Your task to perform on an android device: Show me popular videos on Youtube Image 0: 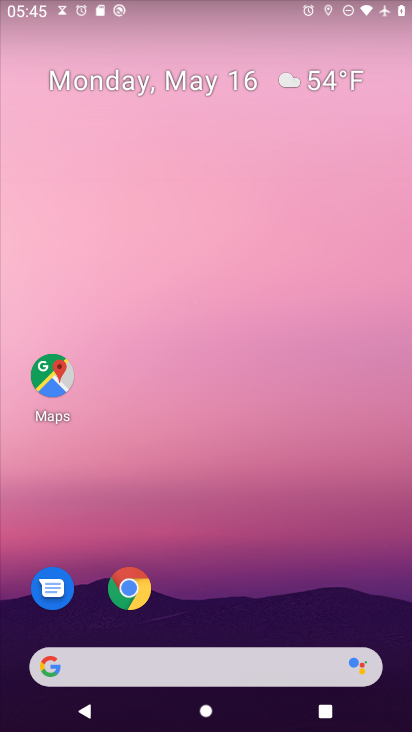
Step 0: drag from (217, 555) to (230, 48)
Your task to perform on an android device: Show me popular videos on Youtube Image 1: 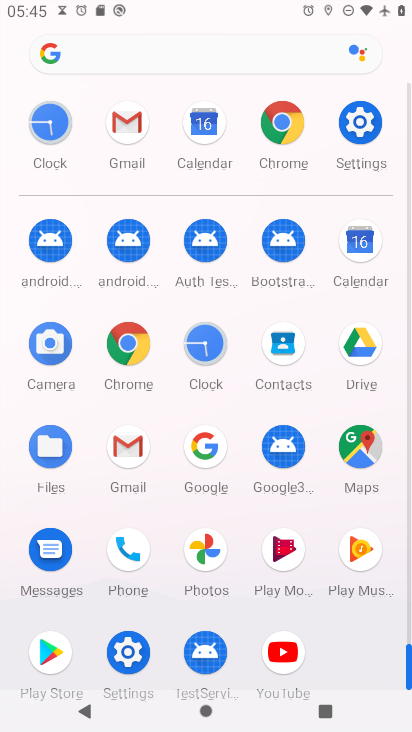
Step 1: drag from (17, 568) to (20, 220)
Your task to perform on an android device: Show me popular videos on Youtube Image 2: 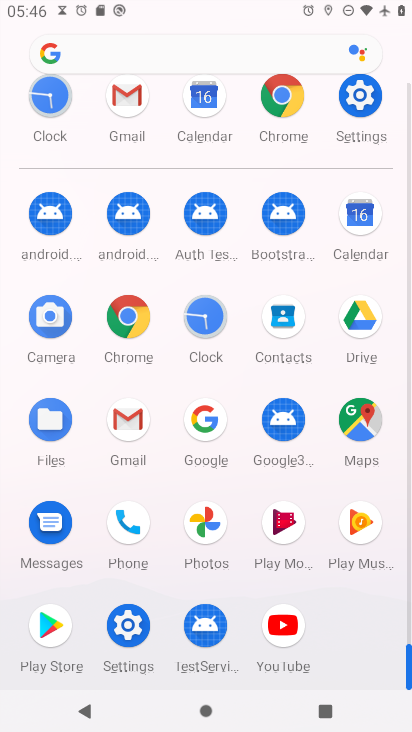
Step 2: click (285, 622)
Your task to perform on an android device: Show me popular videos on Youtube Image 3: 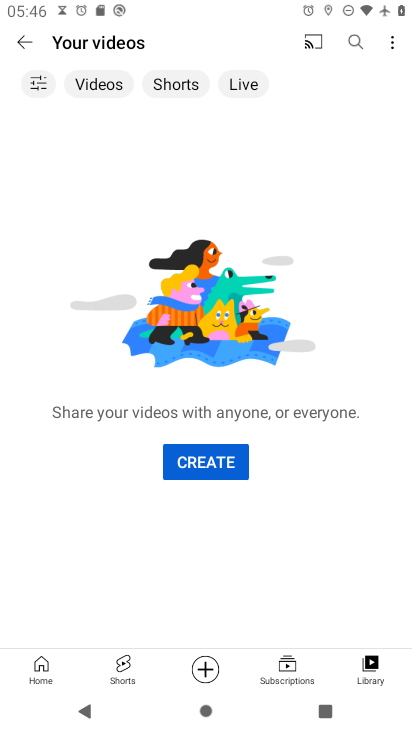
Step 3: click (41, 661)
Your task to perform on an android device: Show me popular videos on Youtube Image 4: 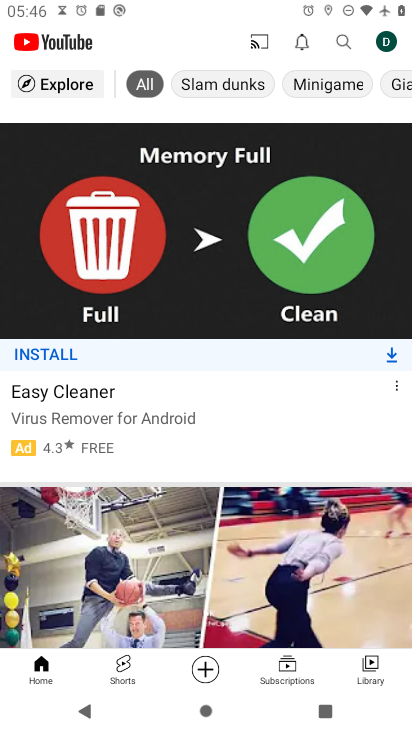
Step 4: click (69, 88)
Your task to perform on an android device: Show me popular videos on Youtube Image 5: 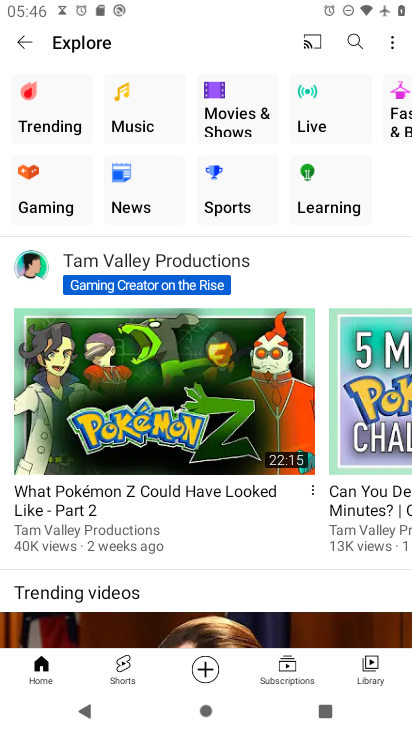
Step 5: click (63, 96)
Your task to perform on an android device: Show me popular videos on Youtube Image 6: 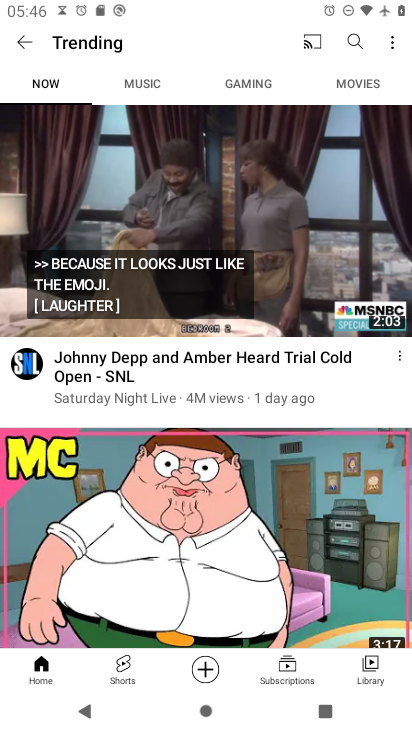
Step 6: task complete